Your task to perform on an android device: Open Youtube and go to "Your channel" Image 0: 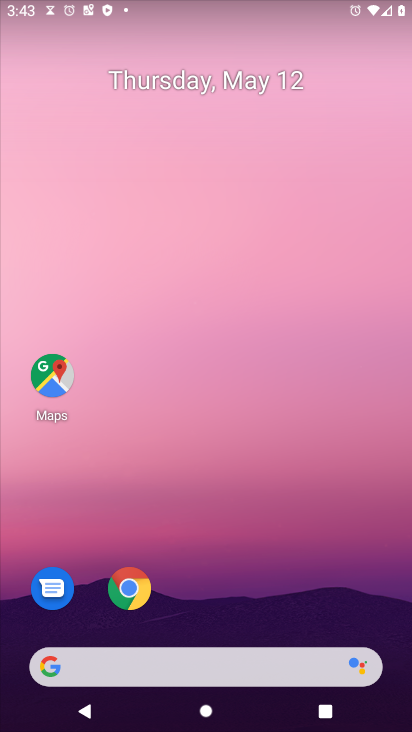
Step 0: drag from (296, 561) to (267, 5)
Your task to perform on an android device: Open Youtube and go to "Your channel" Image 1: 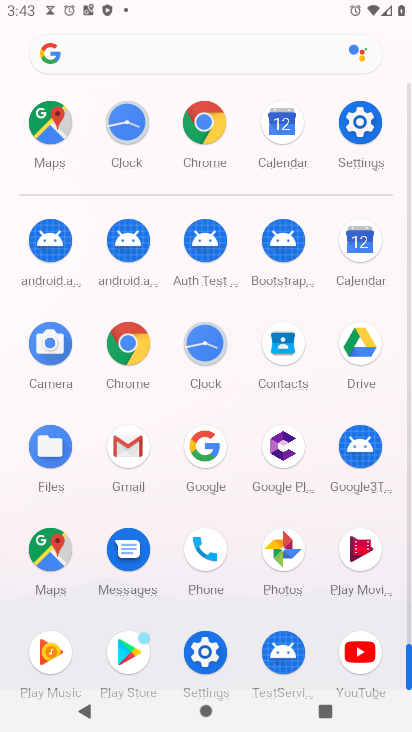
Step 1: drag from (3, 573) to (18, 246)
Your task to perform on an android device: Open Youtube and go to "Your channel" Image 2: 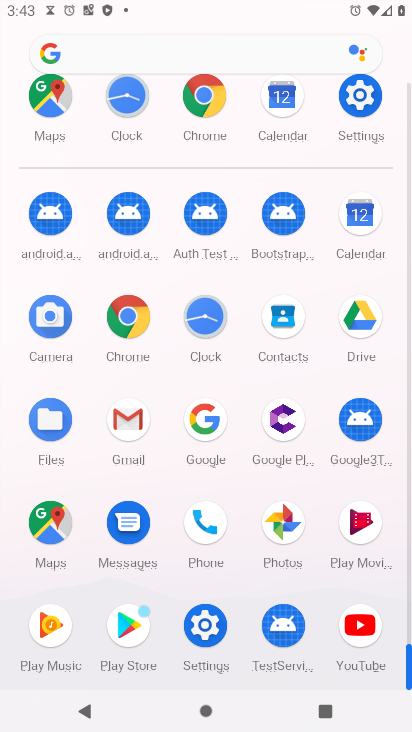
Step 2: click (362, 626)
Your task to perform on an android device: Open Youtube and go to "Your channel" Image 3: 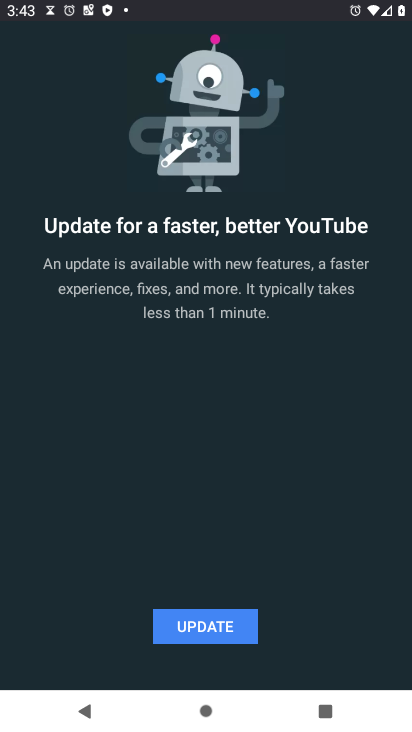
Step 3: click (215, 628)
Your task to perform on an android device: Open Youtube and go to "Your channel" Image 4: 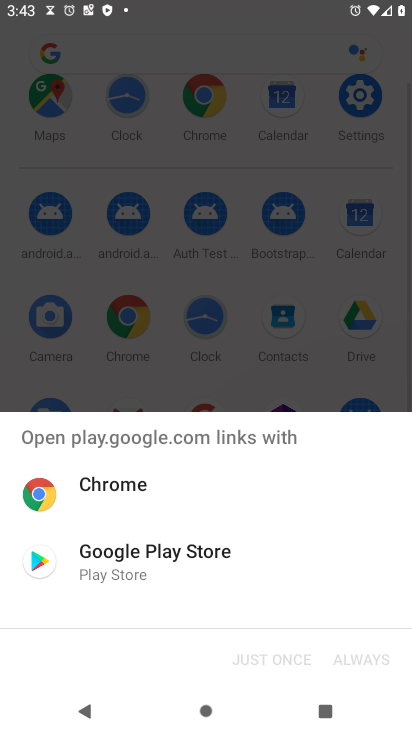
Step 4: click (156, 546)
Your task to perform on an android device: Open Youtube and go to "Your channel" Image 5: 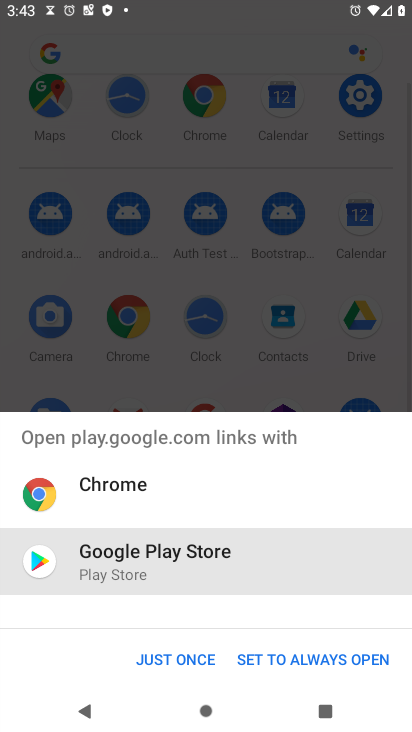
Step 5: click (176, 660)
Your task to perform on an android device: Open Youtube and go to "Your channel" Image 6: 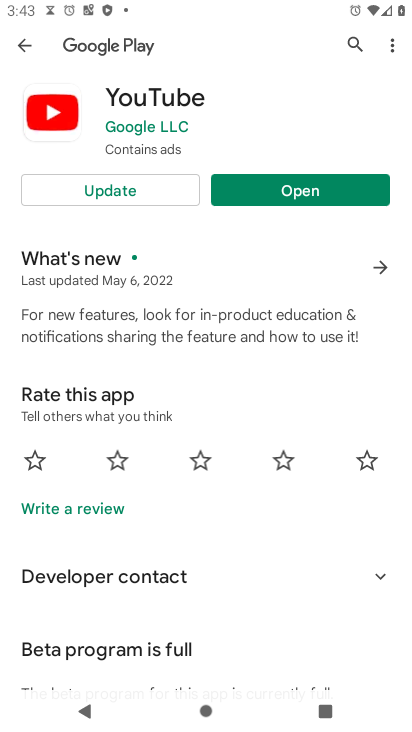
Step 6: click (92, 191)
Your task to perform on an android device: Open Youtube and go to "Your channel" Image 7: 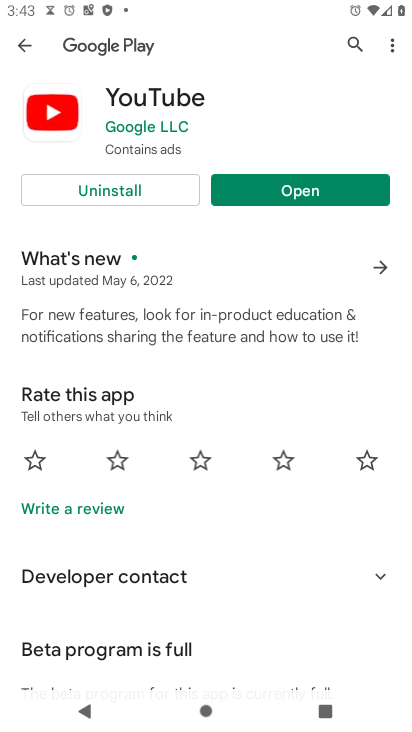
Step 7: click (279, 191)
Your task to perform on an android device: Open Youtube and go to "Your channel" Image 8: 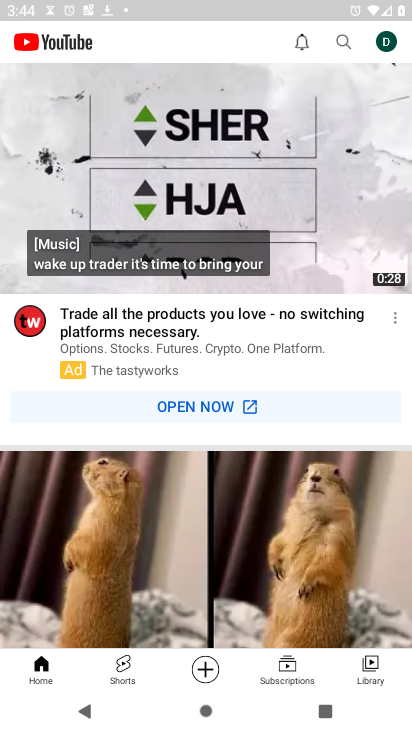
Step 8: click (386, 672)
Your task to perform on an android device: Open Youtube and go to "Your channel" Image 9: 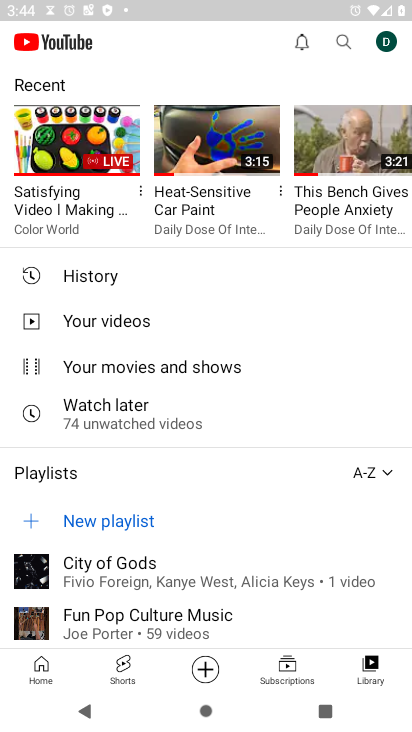
Step 9: click (129, 326)
Your task to perform on an android device: Open Youtube and go to "Your channel" Image 10: 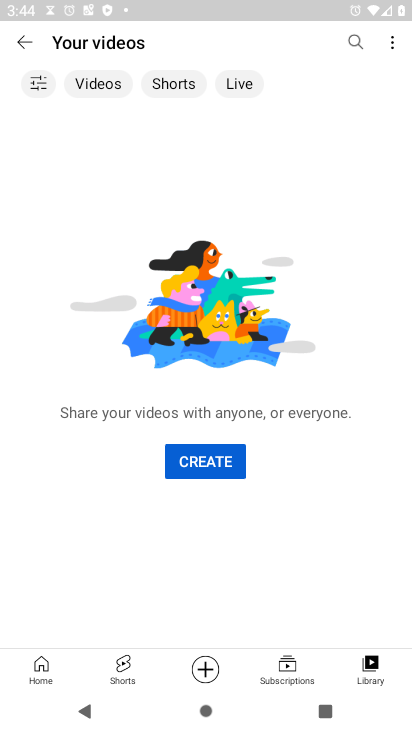
Step 10: task complete